Your task to perform on an android device: empty trash in the gmail app Image 0: 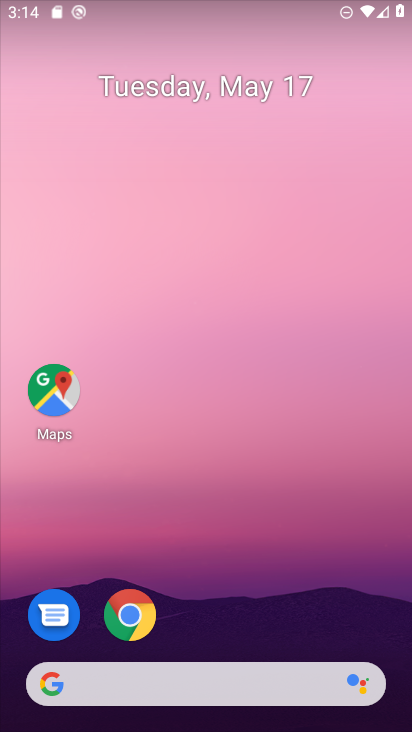
Step 0: drag from (259, 725) to (269, 44)
Your task to perform on an android device: empty trash in the gmail app Image 1: 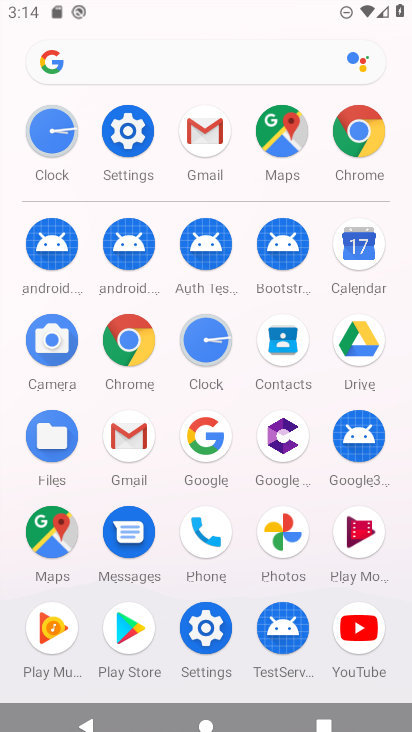
Step 1: click (128, 434)
Your task to perform on an android device: empty trash in the gmail app Image 2: 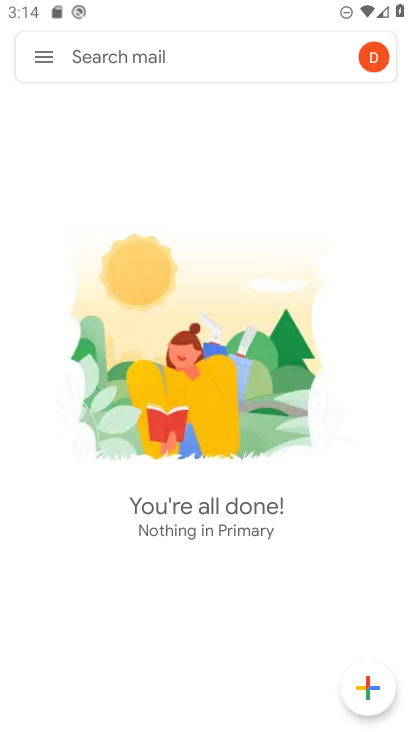
Step 2: click (38, 59)
Your task to perform on an android device: empty trash in the gmail app Image 3: 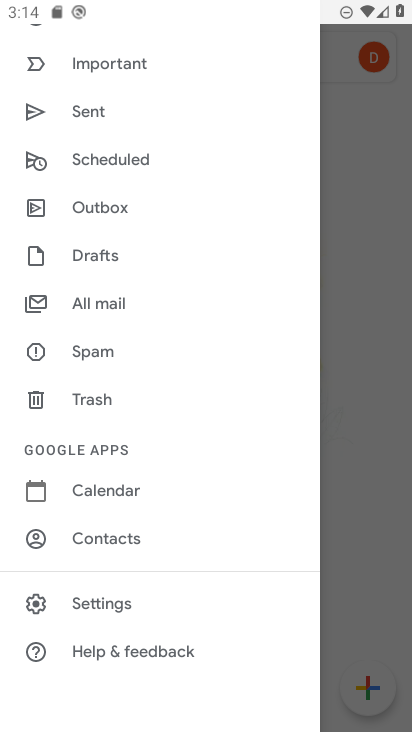
Step 3: click (95, 393)
Your task to perform on an android device: empty trash in the gmail app Image 4: 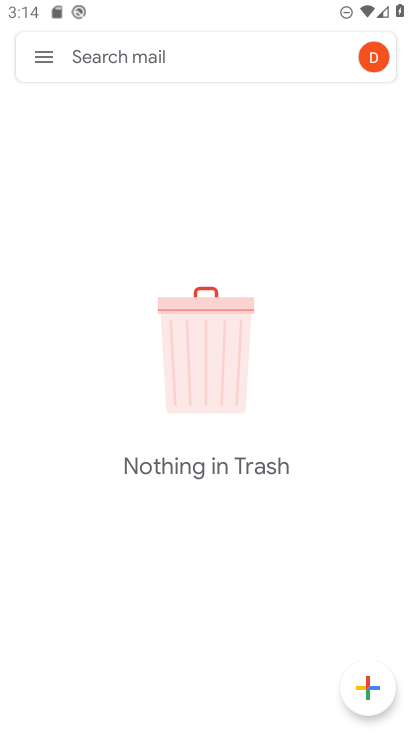
Step 4: task complete